Your task to perform on an android device: turn off sleep mode Image 0: 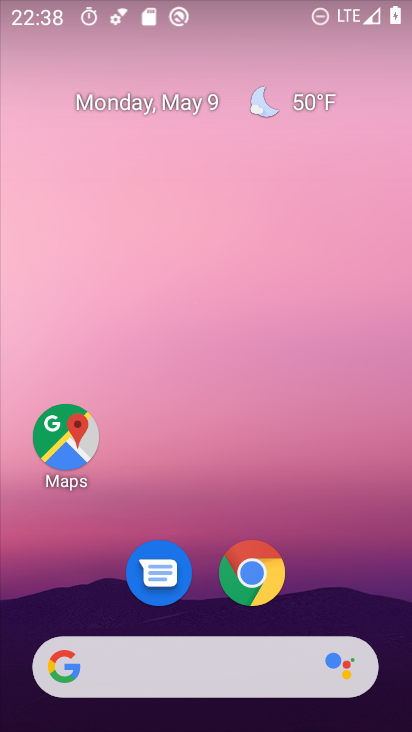
Step 0: click (346, 601)
Your task to perform on an android device: turn off sleep mode Image 1: 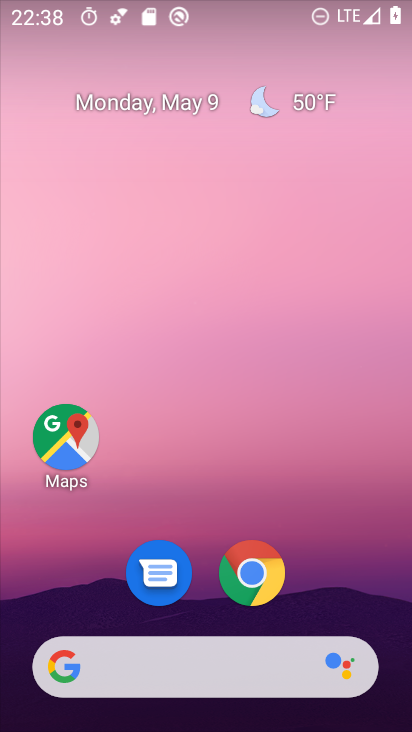
Step 1: drag from (343, 594) to (307, 139)
Your task to perform on an android device: turn off sleep mode Image 2: 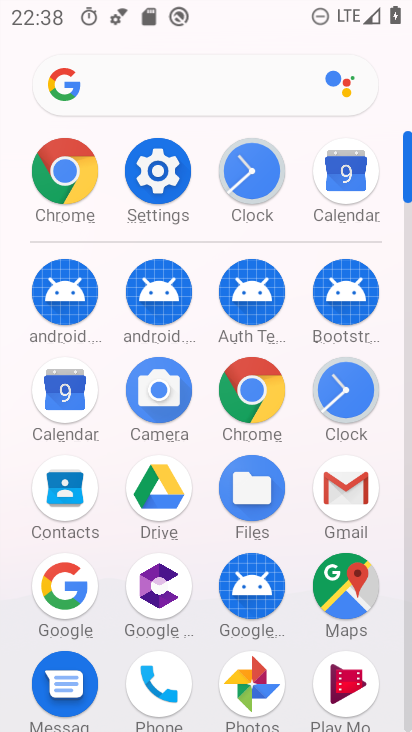
Step 2: click (167, 160)
Your task to perform on an android device: turn off sleep mode Image 3: 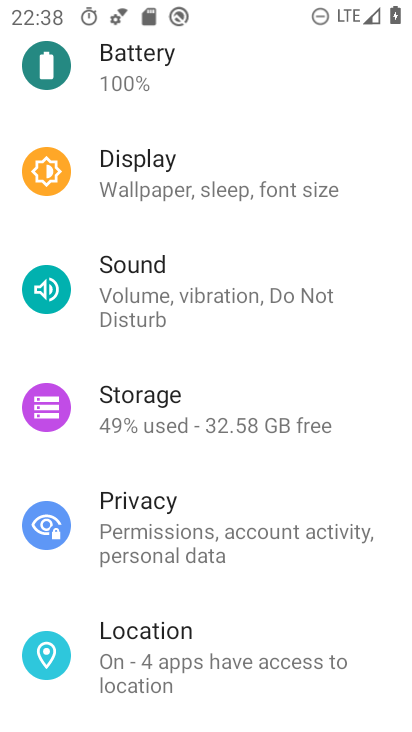
Step 3: click (245, 178)
Your task to perform on an android device: turn off sleep mode Image 4: 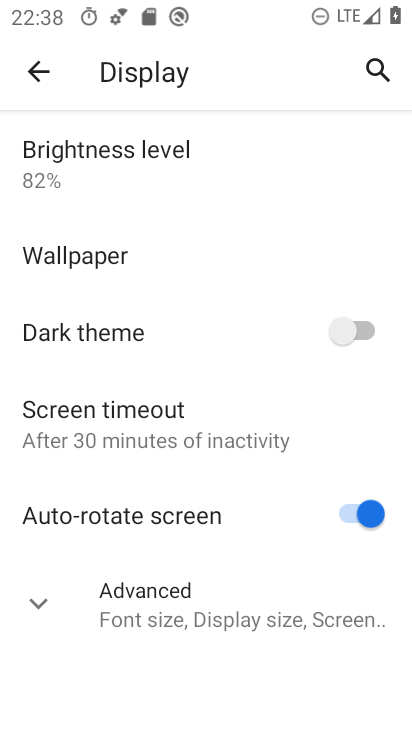
Step 4: click (173, 426)
Your task to perform on an android device: turn off sleep mode Image 5: 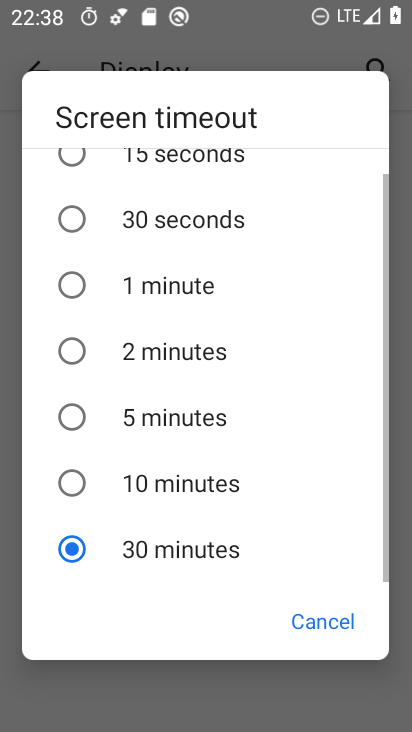
Step 5: task complete